Your task to perform on an android device: add a contact in the contacts app Image 0: 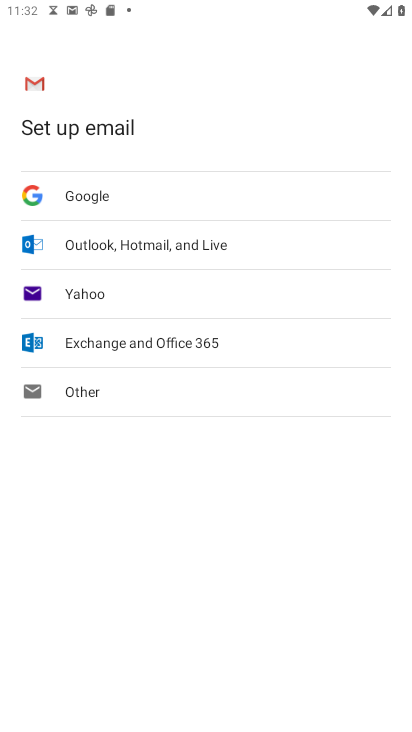
Step 0: press home button
Your task to perform on an android device: add a contact in the contacts app Image 1: 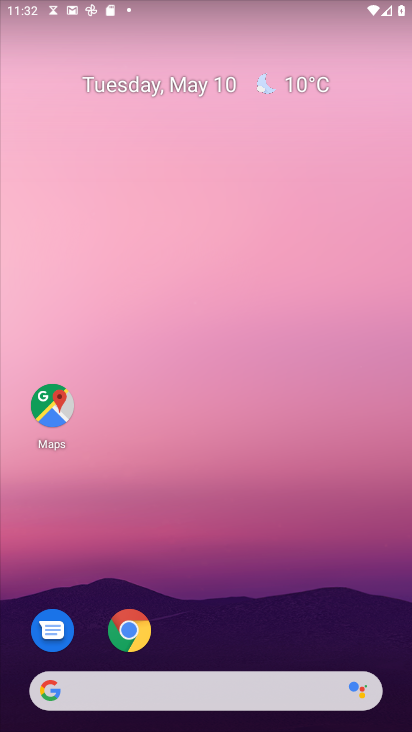
Step 1: drag from (276, 571) to (270, 54)
Your task to perform on an android device: add a contact in the contacts app Image 2: 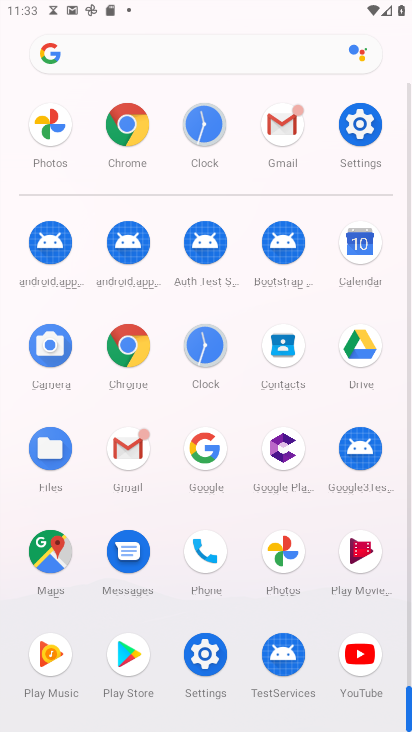
Step 2: click (291, 346)
Your task to perform on an android device: add a contact in the contacts app Image 3: 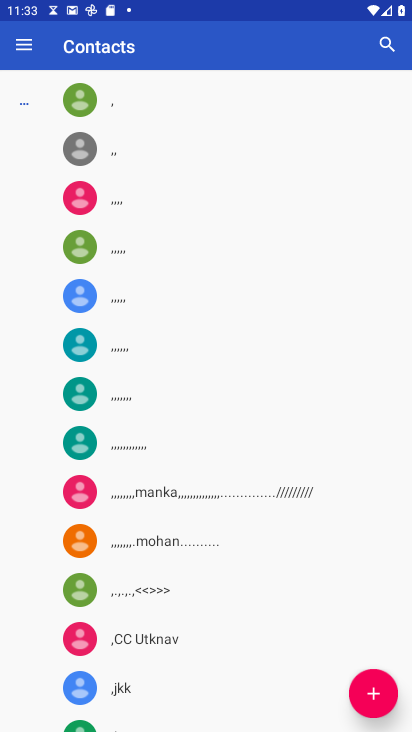
Step 3: click (383, 684)
Your task to perform on an android device: add a contact in the contacts app Image 4: 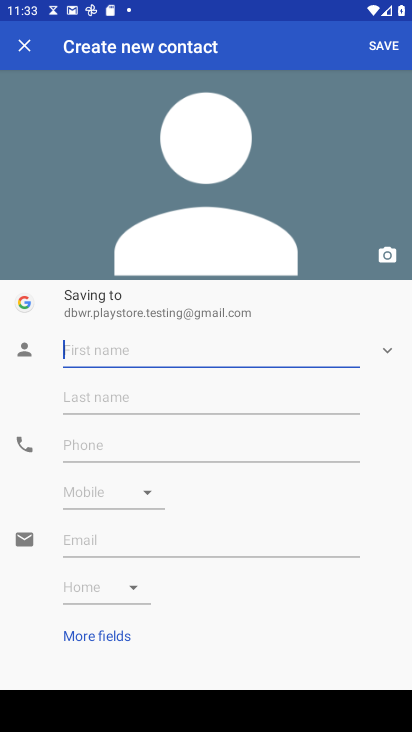
Step 4: type "grvdt"
Your task to perform on an android device: add a contact in the contacts app Image 5: 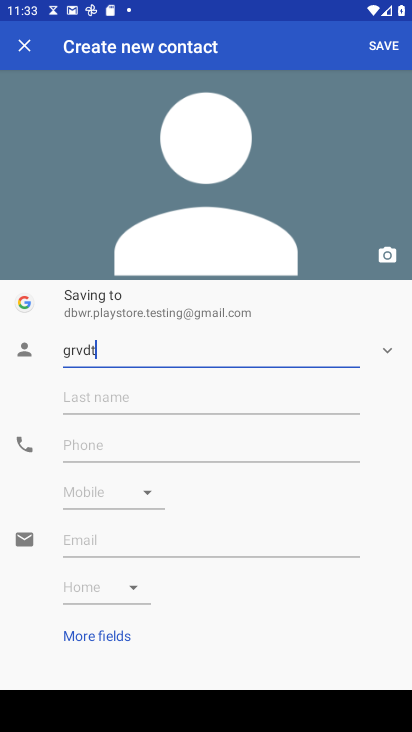
Step 5: click (147, 445)
Your task to perform on an android device: add a contact in the contacts app Image 6: 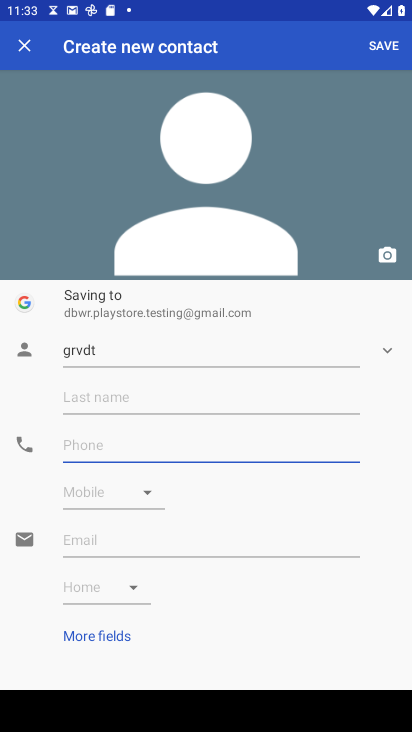
Step 6: type "3543537645"
Your task to perform on an android device: add a contact in the contacts app Image 7: 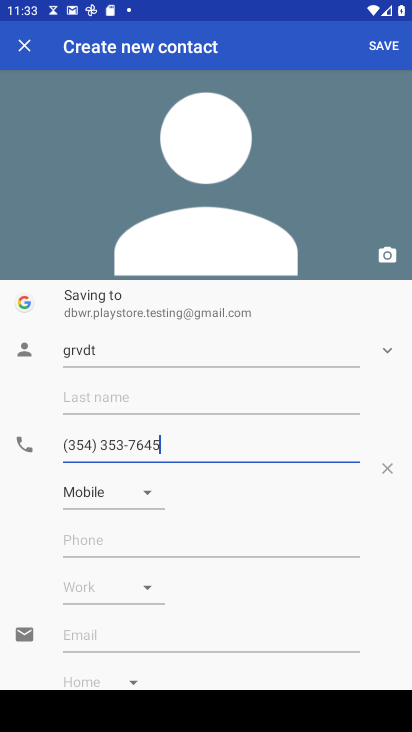
Step 7: click (386, 39)
Your task to perform on an android device: add a contact in the contacts app Image 8: 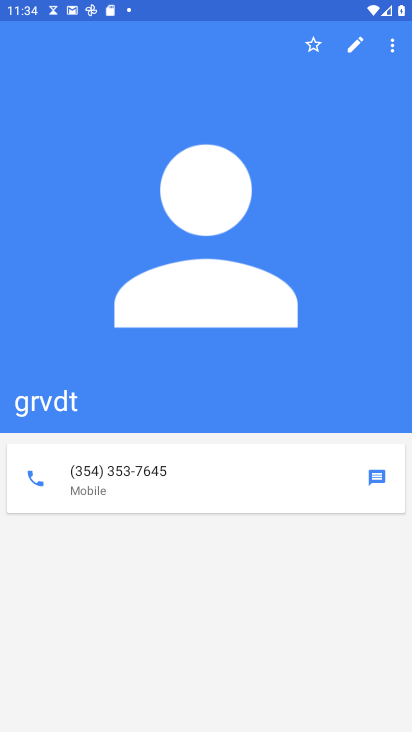
Step 8: task complete